Your task to perform on an android device: find which apps use the phone's location Image 0: 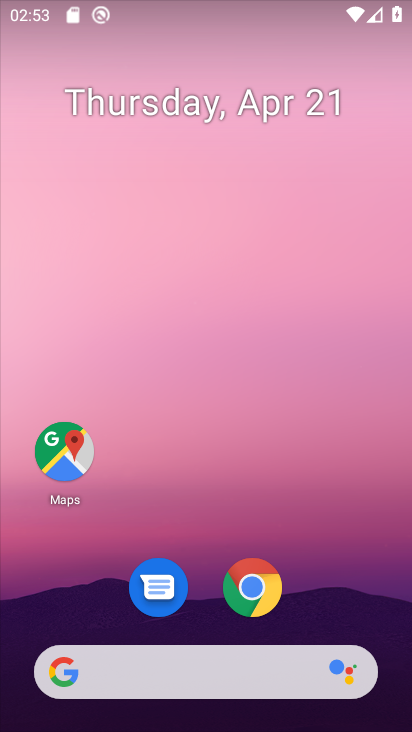
Step 0: drag from (363, 592) to (357, 131)
Your task to perform on an android device: find which apps use the phone's location Image 1: 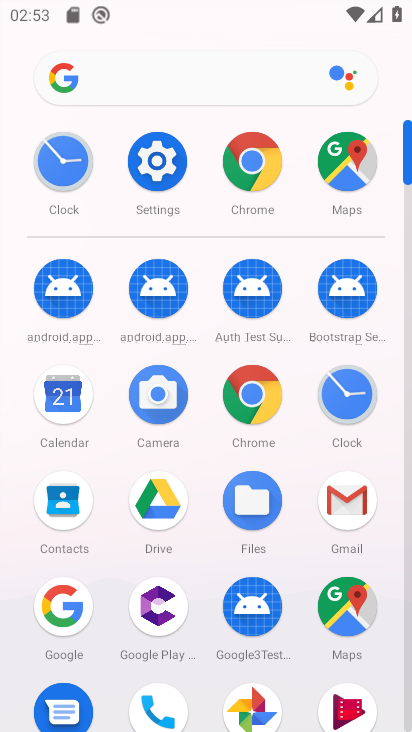
Step 1: drag from (296, 555) to (295, 276)
Your task to perform on an android device: find which apps use the phone's location Image 2: 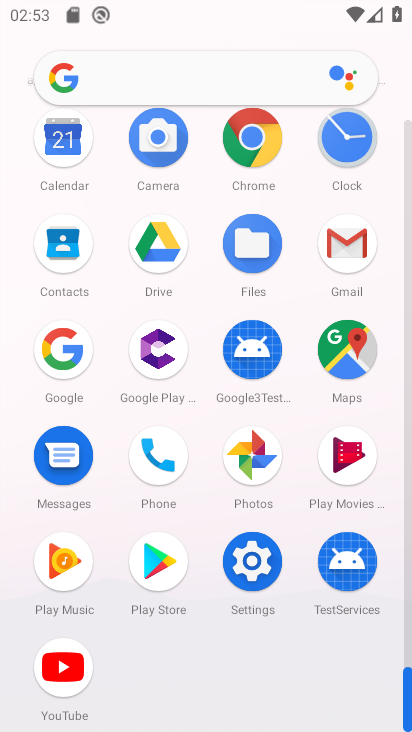
Step 2: click (259, 581)
Your task to perform on an android device: find which apps use the phone's location Image 3: 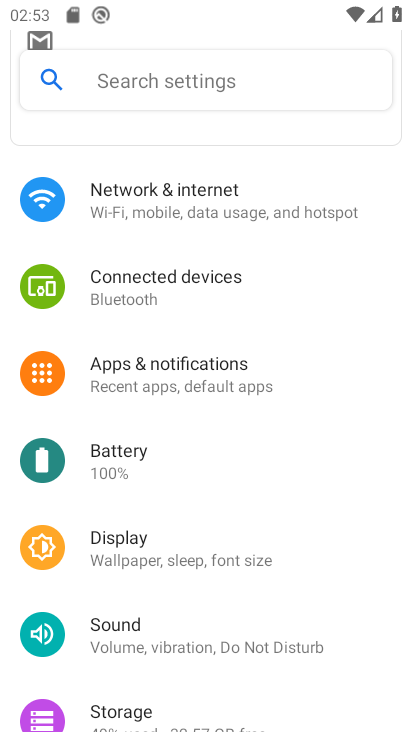
Step 3: drag from (349, 622) to (353, 395)
Your task to perform on an android device: find which apps use the phone's location Image 4: 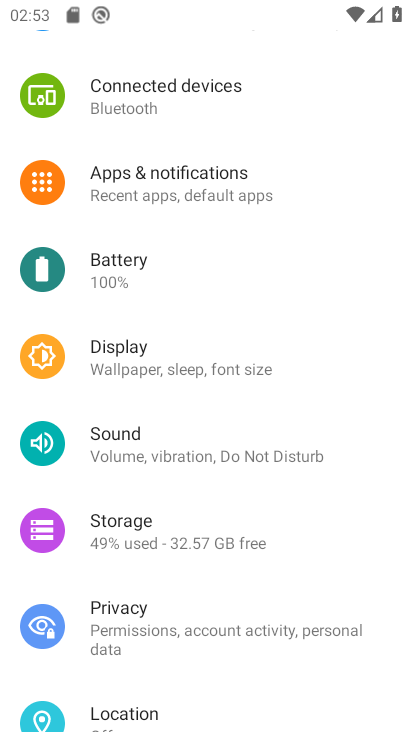
Step 4: drag from (376, 645) to (380, 461)
Your task to perform on an android device: find which apps use the phone's location Image 5: 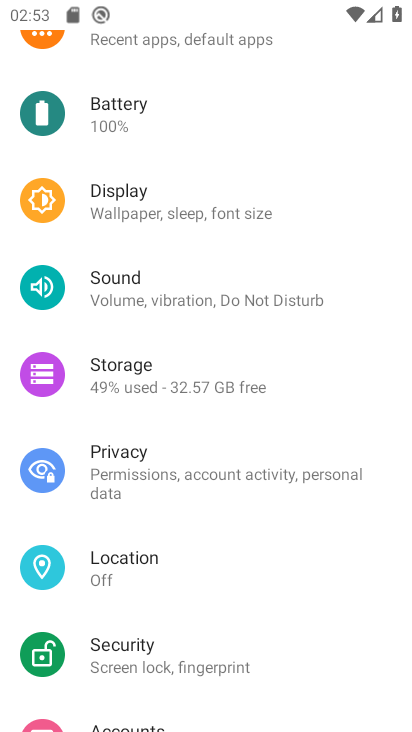
Step 5: drag from (362, 631) to (358, 465)
Your task to perform on an android device: find which apps use the phone's location Image 6: 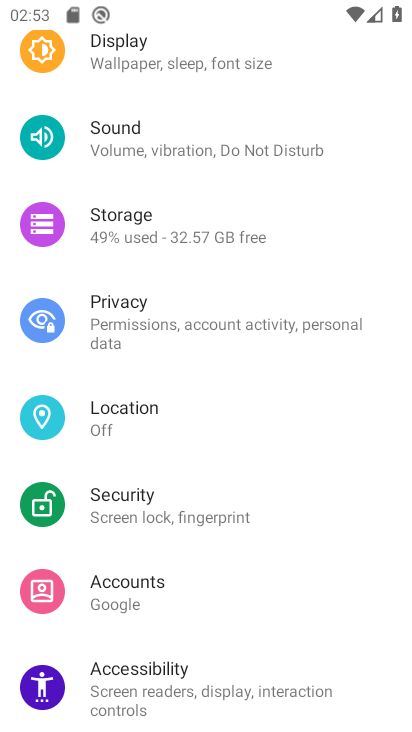
Step 6: drag from (365, 664) to (366, 460)
Your task to perform on an android device: find which apps use the phone's location Image 7: 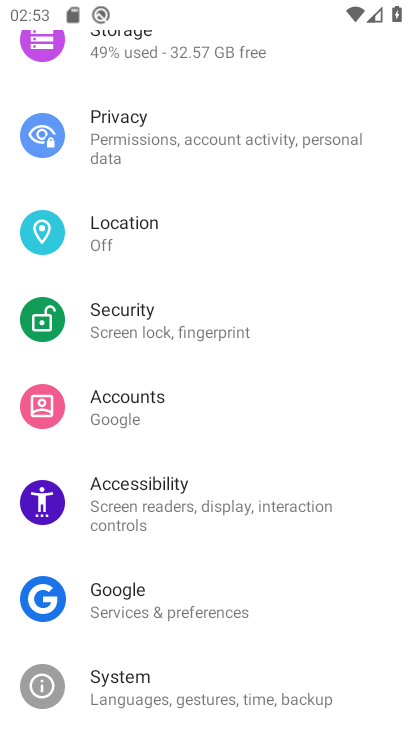
Step 7: drag from (372, 650) to (378, 490)
Your task to perform on an android device: find which apps use the phone's location Image 8: 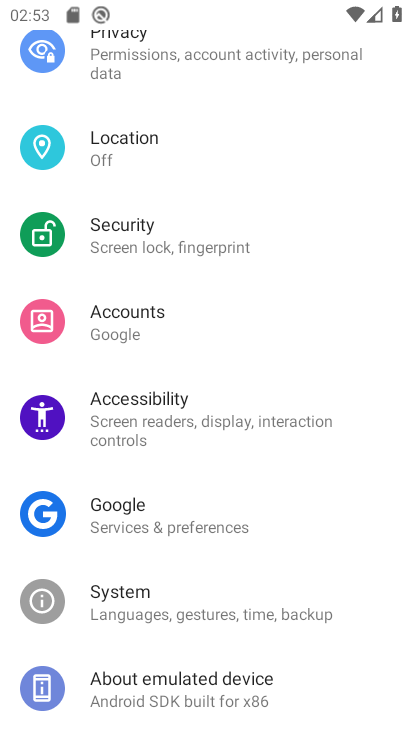
Step 8: drag from (358, 647) to (379, 461)
Your task to perform on an android device: find which apps use the phone's location Image 9: 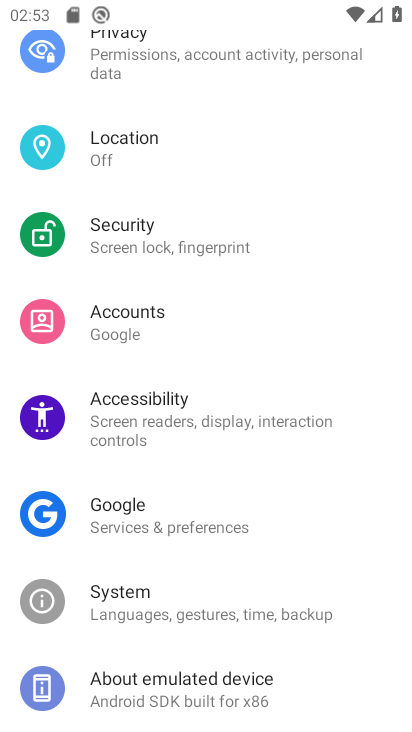
Step 9: drag from (385, 335) to (363, 485)
Your task to perform on an android device: find which apps use the phone's location Image 10: 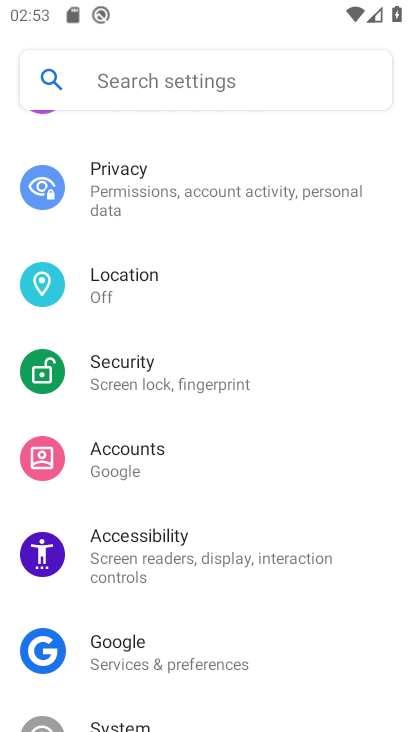
Step 10: drag from (364, 355) to (360, 544)
Your task to perform on an android device: find which apps use the phone's location Image 11: 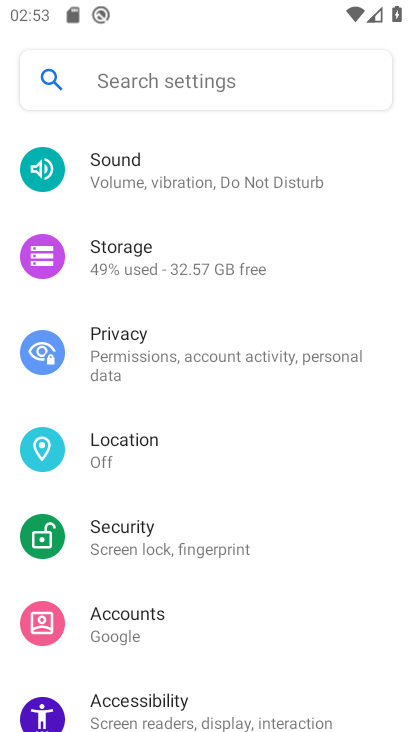
Step 11: click (213, 428)
Your task to perform on an android device: find which apps use the phone's location Image 12: 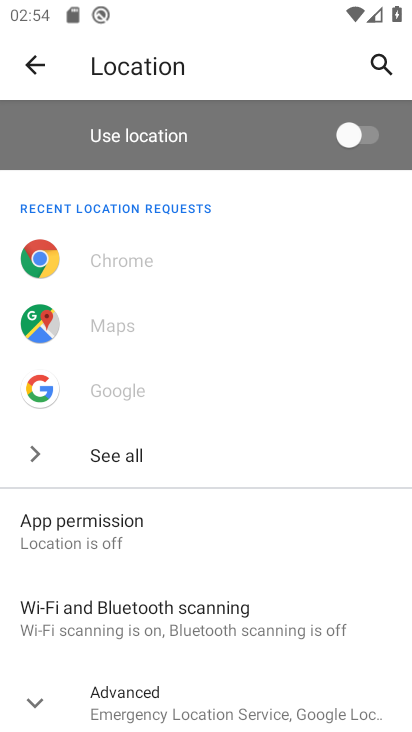
Step 12: click (111, 543)
Your task to perform on an android device: find which apps use the phone's location Image 13: 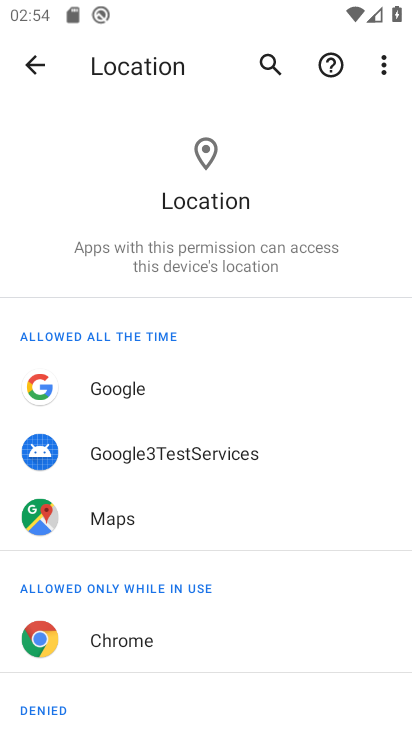
Step 13: drag from (322, 601) to (329, 453)
Your task to perform on an android device: find which apps use the phone's location Image 14: 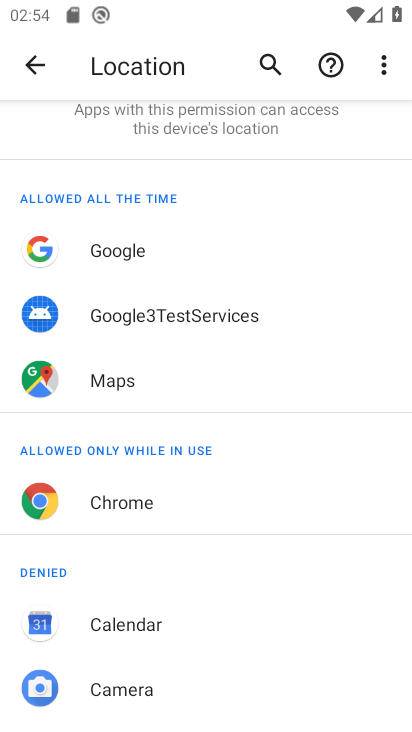
Step 14: drag from (307, 627) to (317, 465)
Your task to perform on an android device: find which apps use the phone's location Image 15: 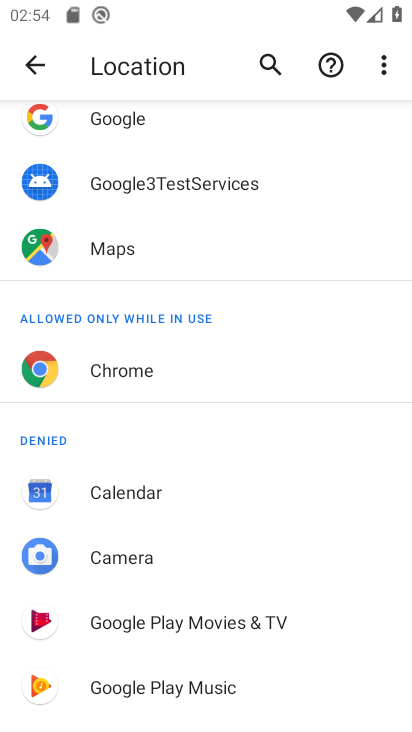
Step 15: drag from (332, 642) to (334, 512)
Your task to perform on an android device: find which apps use the phone's location Image 16: 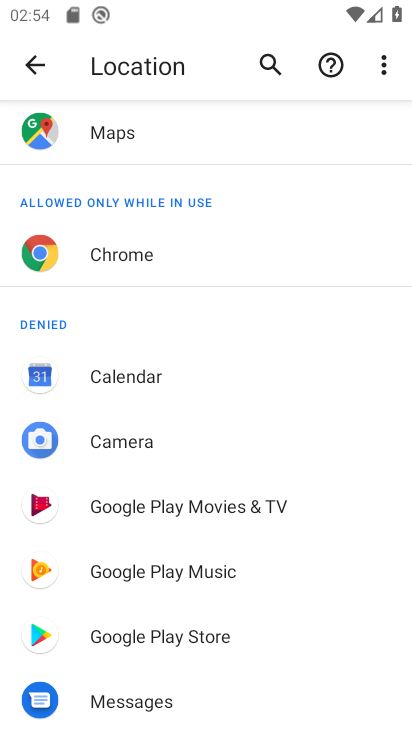
Step 16: drag from (338, 636) to (347, 460)
Your task to perform on an android device: find which apps use the phone's location Image 17: 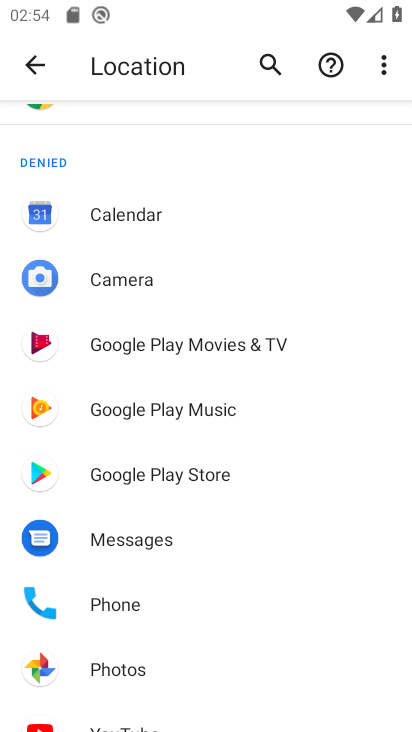
Step 17: drag from (331, 633) to (345, 511)
Your task to perform on an android device: find which apps use the phone's location Image 18: 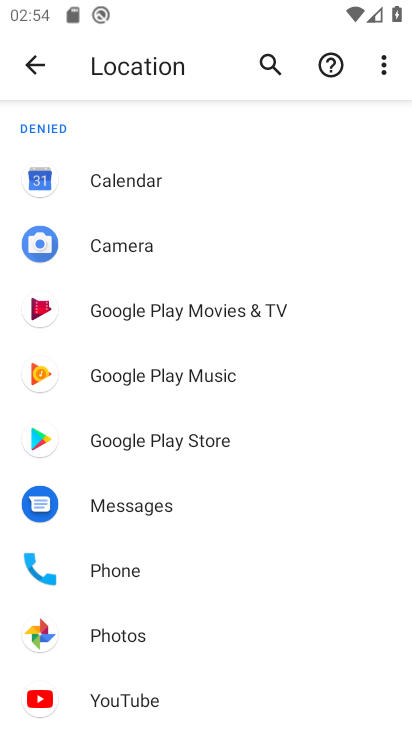
Step 18: click (268, 629)
Your task to perform on an android device: find which apps use the phone's location Image 19: 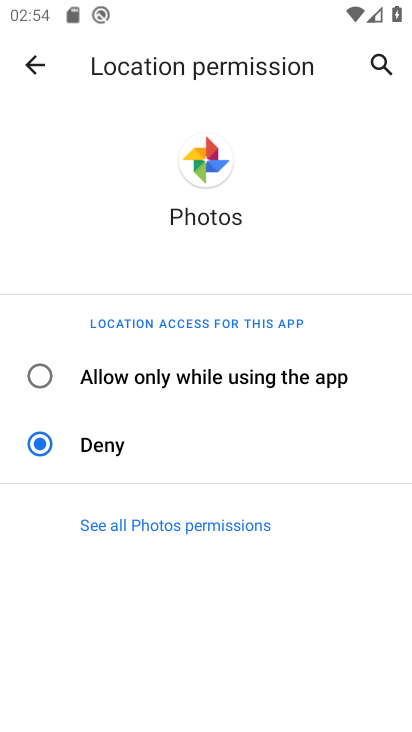
Step 19: click (227, 379)
Your task to perform on an android device: find which apps use the phone's location Image 20: 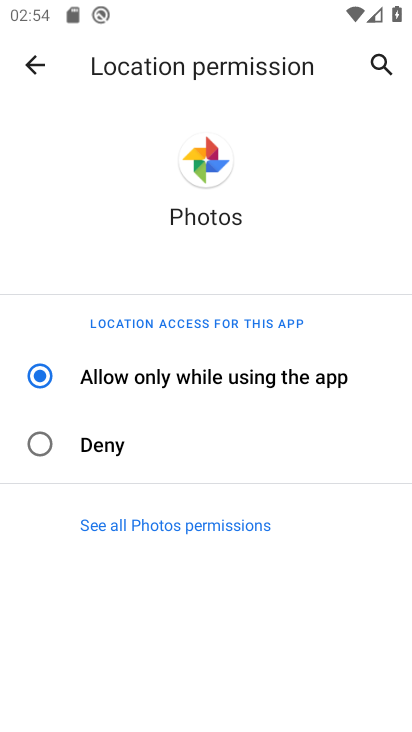
Step 20: task complete